Your task to perform on an android device: allow notifications from all sites in the chrome app Image 0: 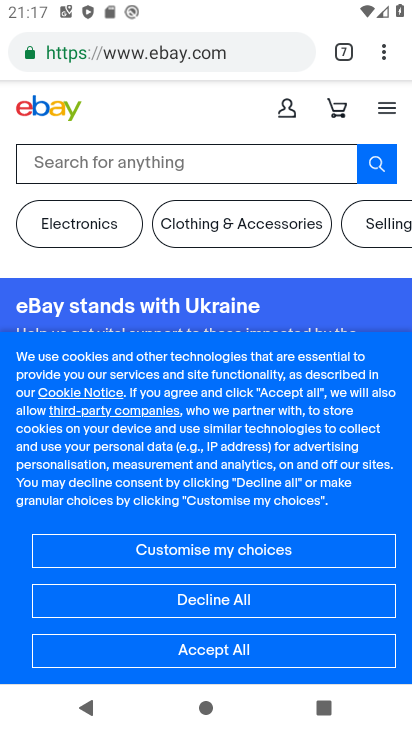
Step 0: press home button
Your task to perform on an android device: allow notifications from all sites in the chrome app Image 1: 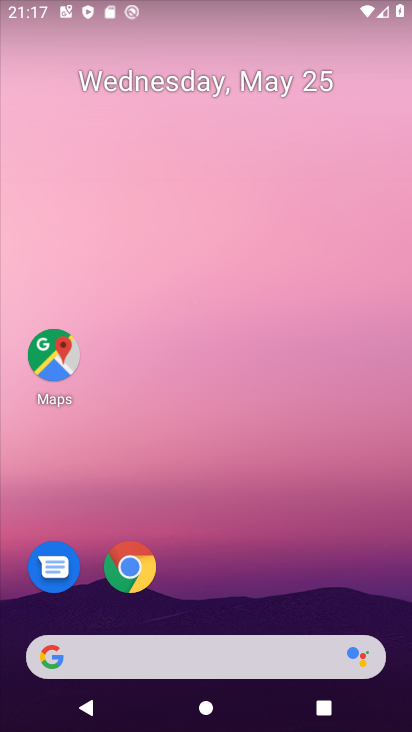
Step 1: click (132, 574)
Your task to perform on an android device: allow notifications from all sites in the chrome app Image 2: 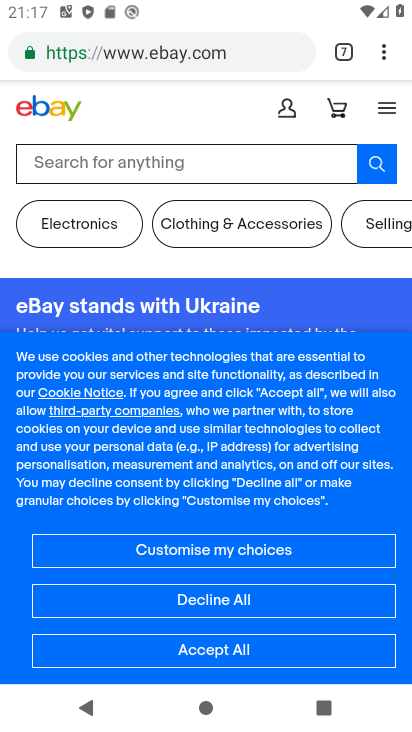
Step 2: click (381, 57)
Your task to perform on an android device: allow notifications from all sites in the chrome app Image 3: 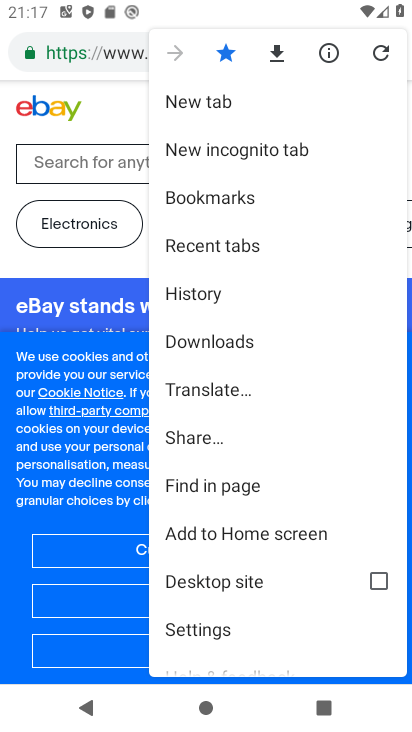
Step 3: click (266, 622)
Your task to perform on an android device: allow notifications from all sites in the chrome app Image 4: 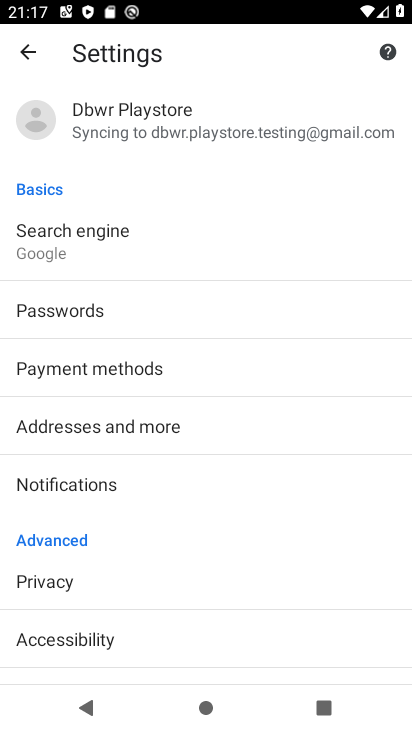
Step 4: click (249, 475)
Your task to perform on an android device: allow notifications from all sites in the chrome app Image 5: 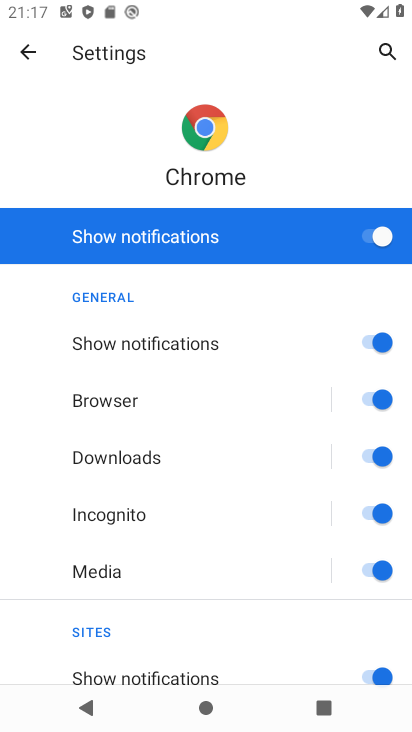
Step 5: task complete